Your task to perform on an android device: check android version Image 0: 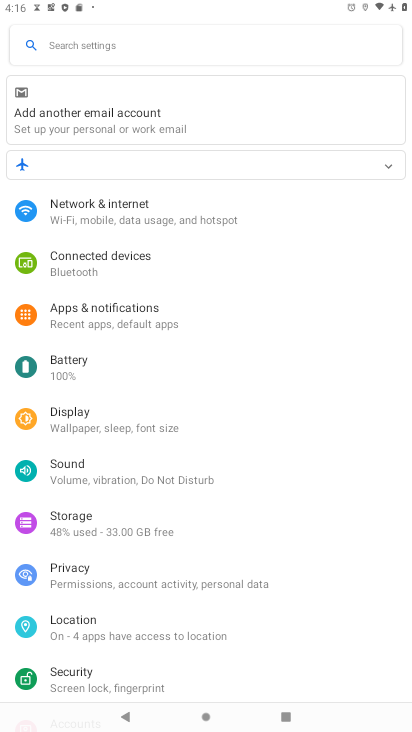
Step 0: press back button
Your task to perform on an android device: check android version Image 1: 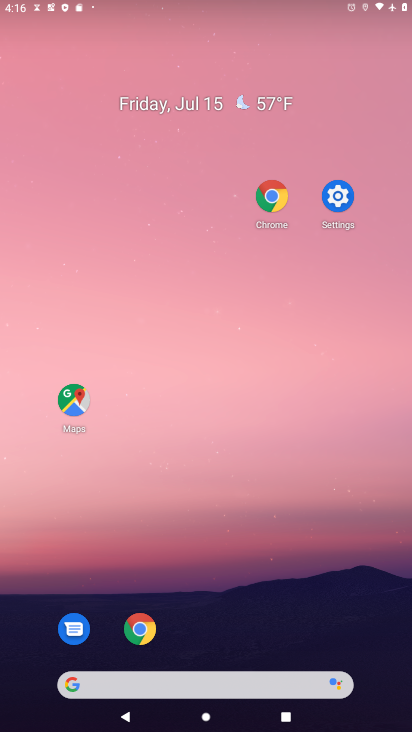
Step 1: drag from (244, 402) to (201, 83)
Your task to perform on an android device: check android version Image 2: 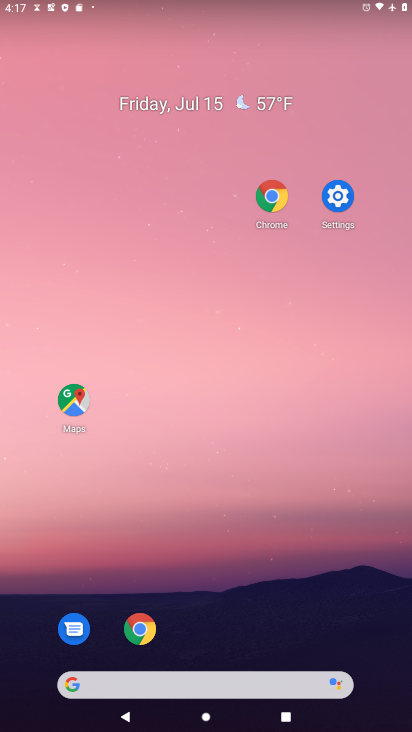
Step 2: drag from (187, 506) to (221, 134)
Your task to perform on an android device: check android version Image 3: 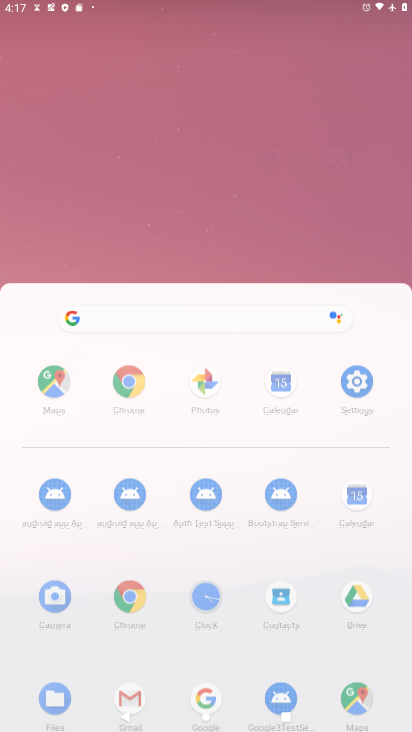
Step 3: drag from (224, 507) to (187, 156)
Your task to perform on an android device: check android version Image 4: 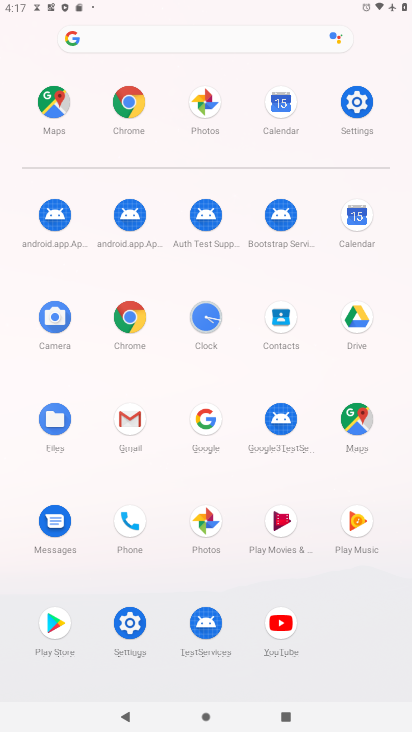
Step 4: drag from (222, 487) to (184, 227)
Your task to perform on an android device: check android version Image 5: 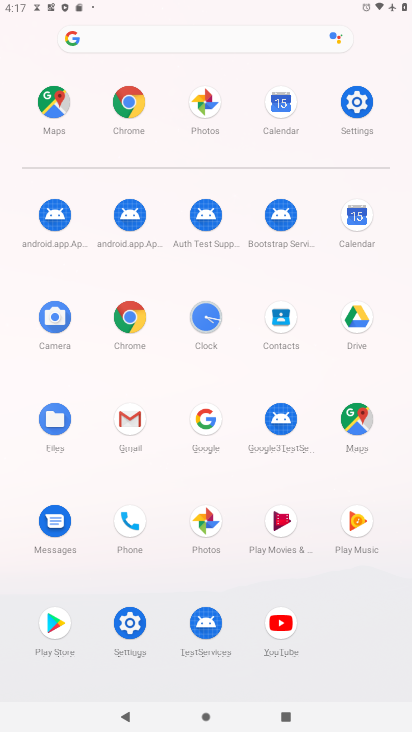
Step 5: click (134, 106)
Your task to perform on an android device: check android version Image 6: 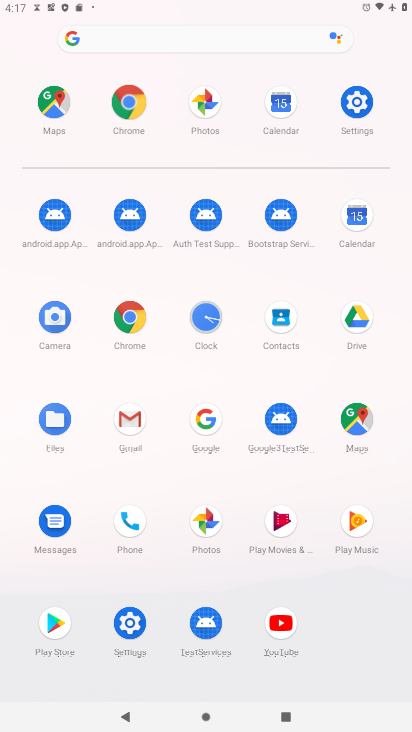
Step 6: click (133, 105)
Your task to perform on an android device: check android version Image 7: 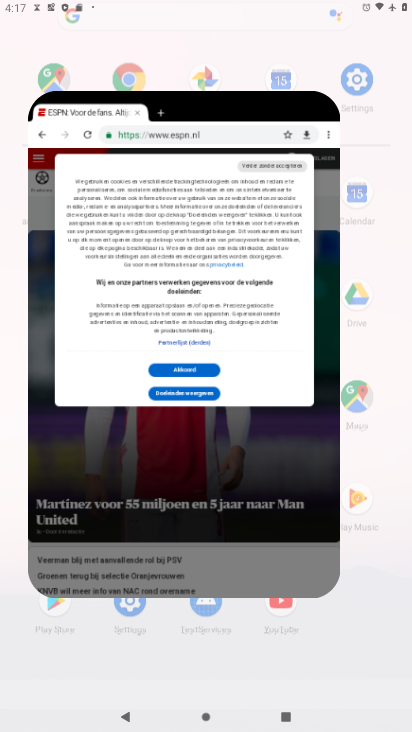
Step 7: click (133, 105)
Your task to perform on an android device: check android version Image 8: 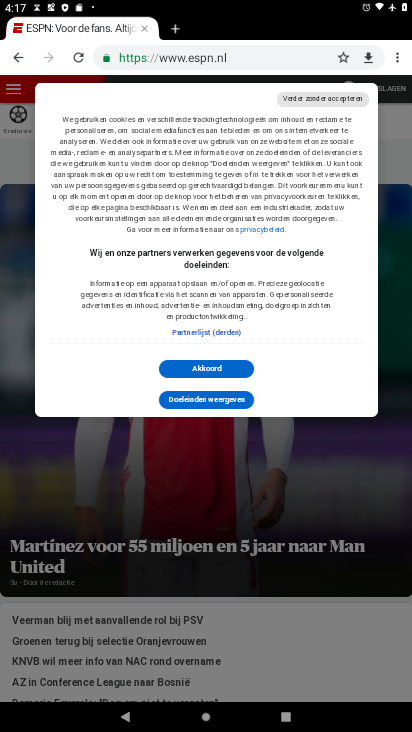
Step 8: click (188, 480)
Your task to perform on an android device: check android version Image 9: 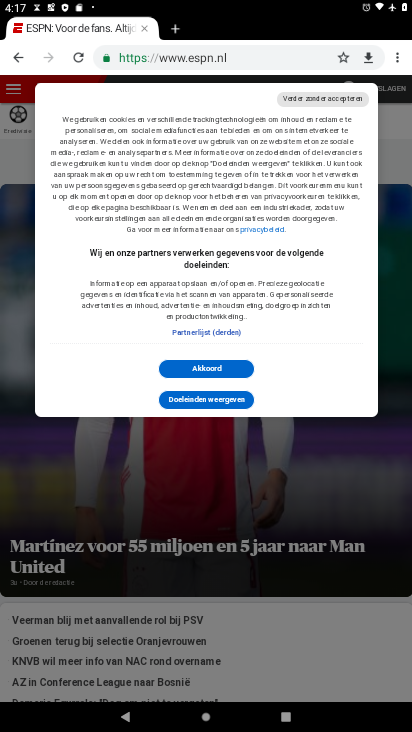
Step 9: click (189, 481)
Your task to perform on an android device: check android version Image 10: 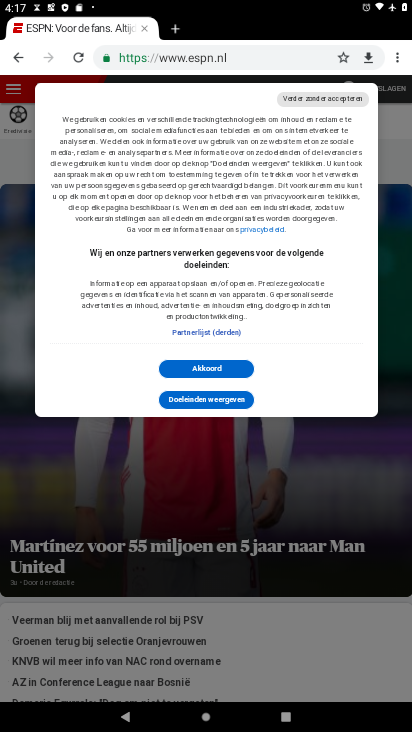
Step 10: click (189, 481)
Your task to perform on an android device: check android version Image 11: 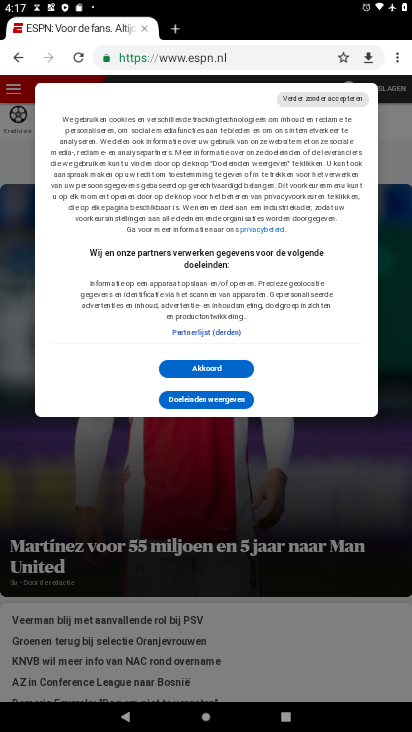
Step 11: click (197, 475)
Your task to perform on an android device: check android version Image 12: 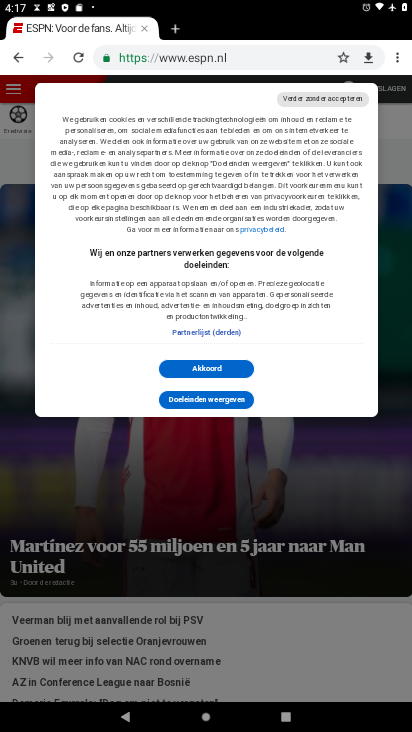
Step 12: click (206, 469)
Your task to perform on an android device: check android version Image 13: 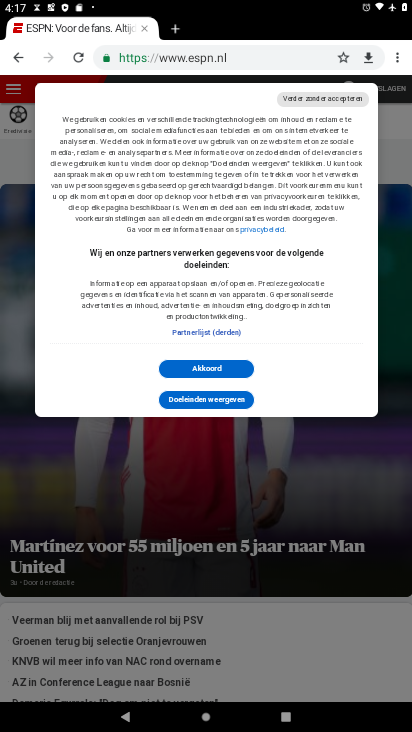
Step 13: click (252, 448)
Your task to perform on an android device: check android version Image 14: 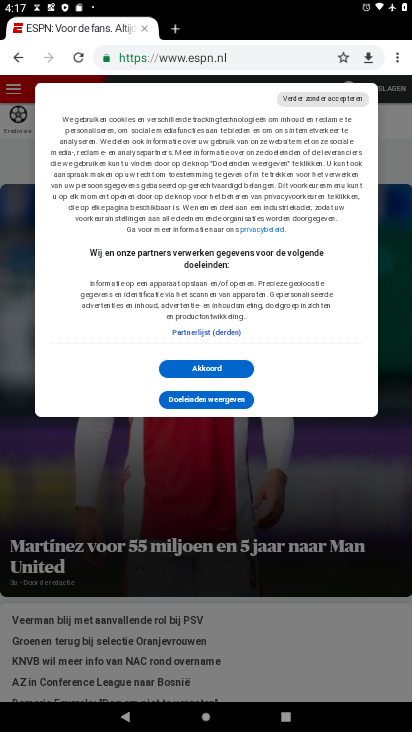
Step 14: click (394, 324)
Your task to perform on an android device: check android version Image 15: 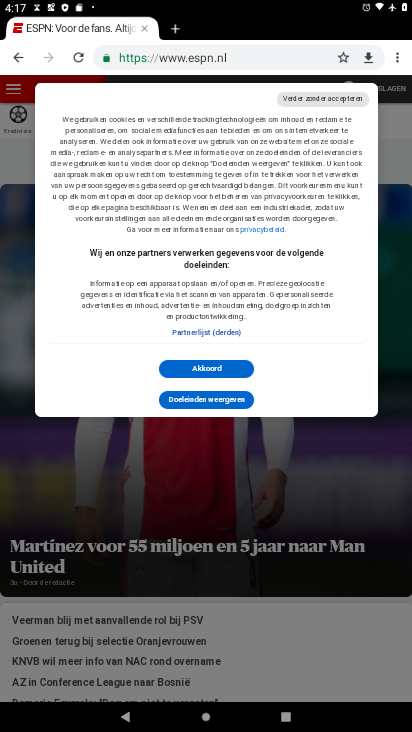
Step 15: click (394, 323)
Your task to perform on an android device: check android version Image 16: 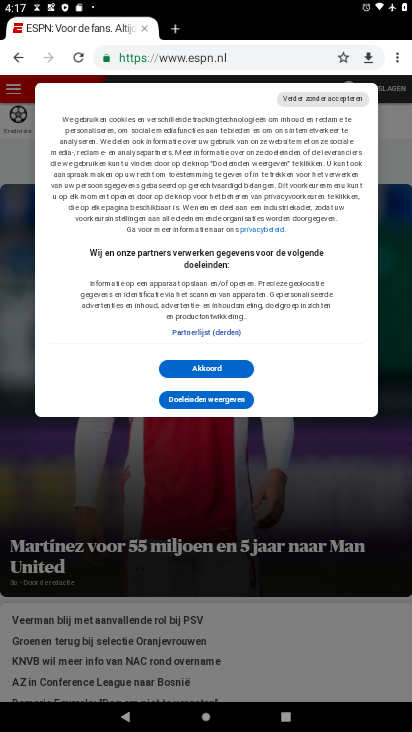
Step 16: press back button
Your task to perform on an android device: check android version Image 17: 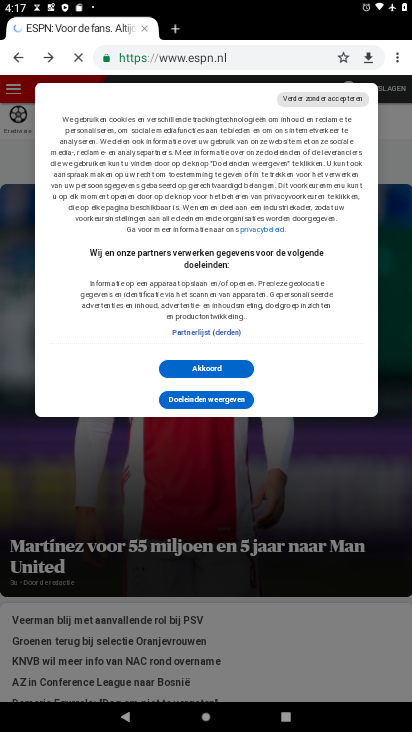
Step 17: press back button
Your task to perform on an android device: check android version Image 18: 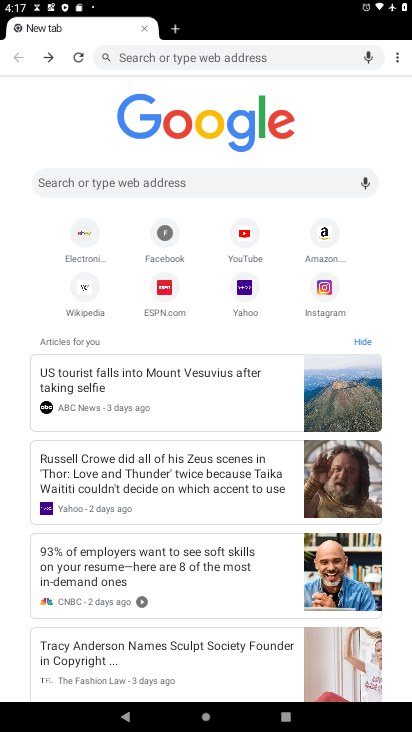
Step 18: press home button
Your task to perform on an android device: check android version Image 19: 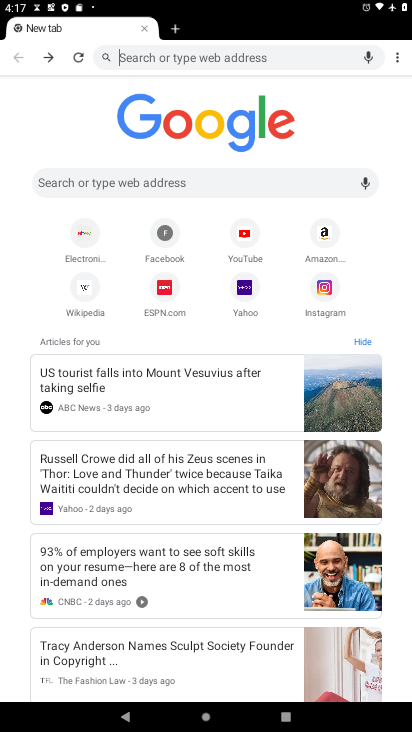
Step 19: press home button
Your task to perform on an android device: check android version Image 20: 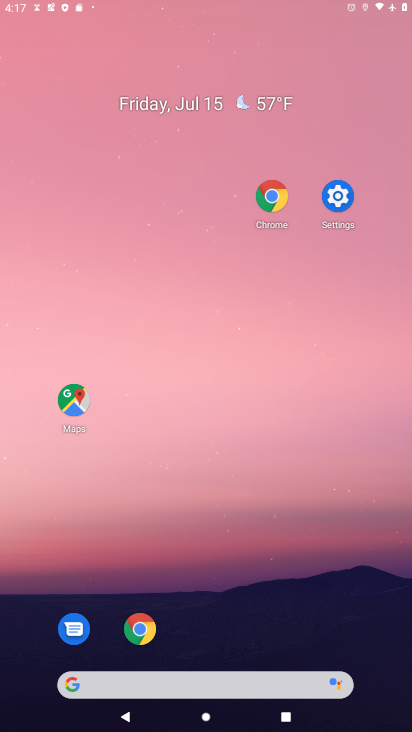
Step 20: press home button
Your task to perform on an android device: check android version Image 21: 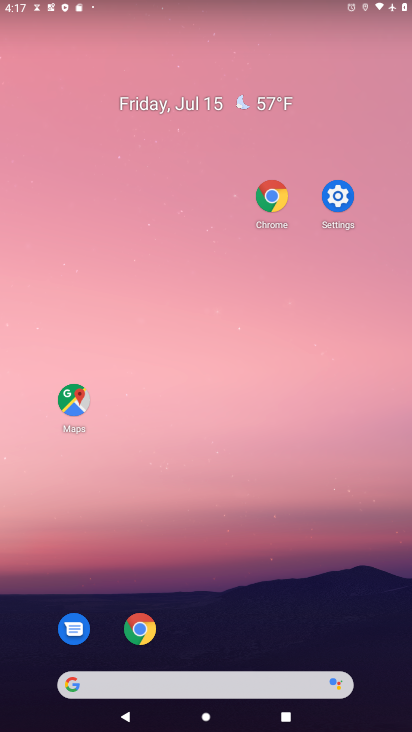
Step 21: drag from (239, 647) to (178, 62)
Your task to perform on an android device: check android version Image 22: 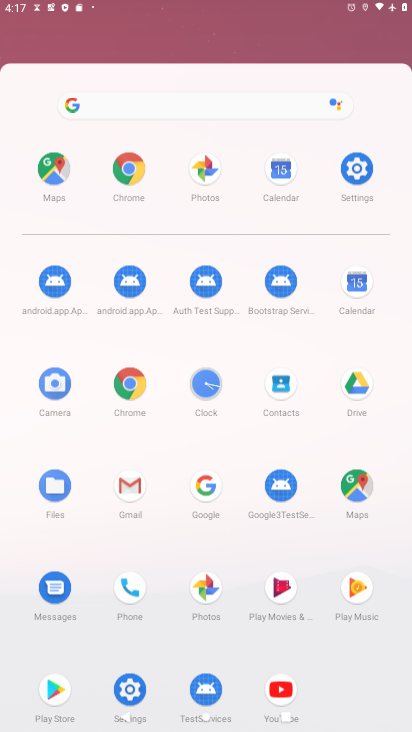
Step 22: drag from (237, 497) to (206, 56)
Your task to perform on an android device: check android version Image 23: 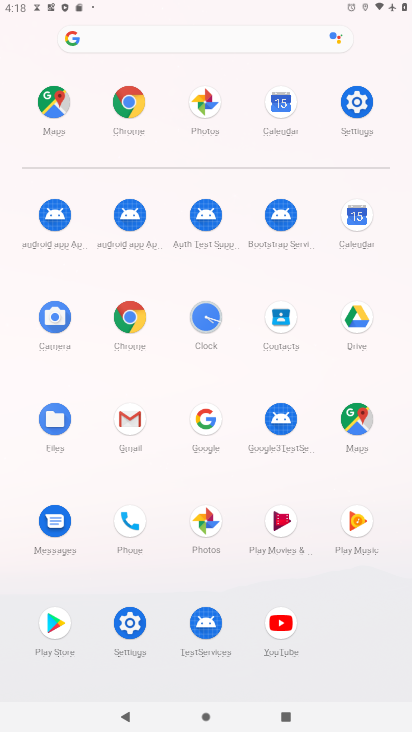
Step 23: click (355, 98)
Your task to perform on an android device: check android version Image 24: 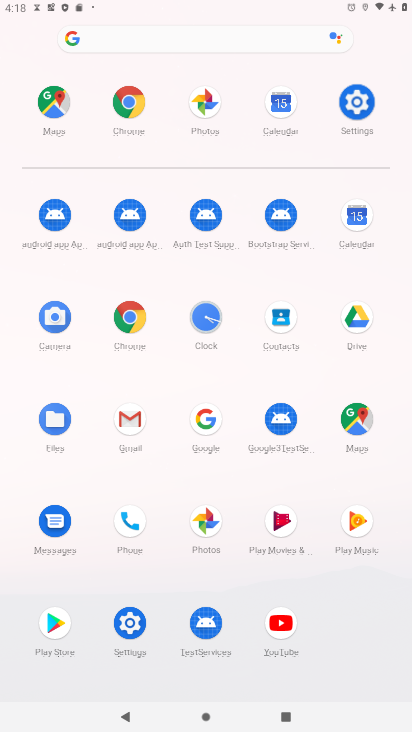
Step 24: click (356, 98)
Your task to perform on an android device: check android version Image 25: 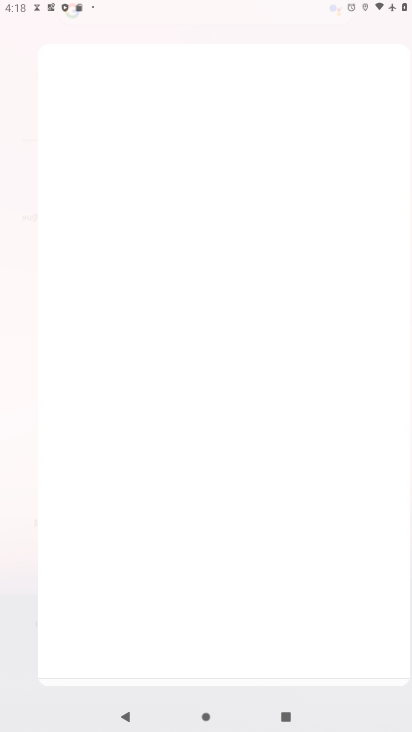
Step 25: click (358, 99)
Your task to perform on an android device: check android version Image 26: 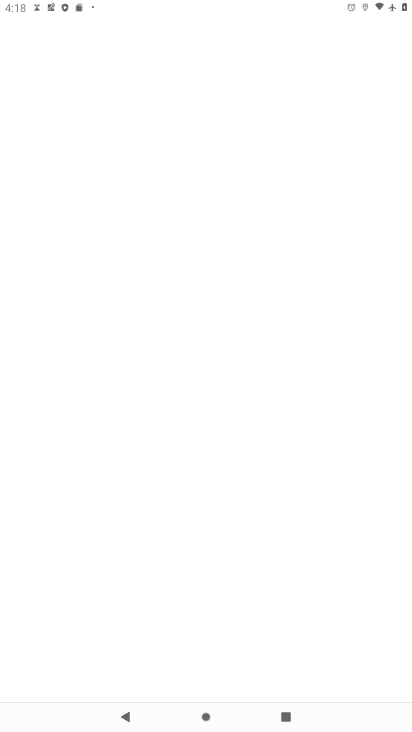
Step 26: click (358, 99)
Your task to perform on an android device: check android version Image 27: 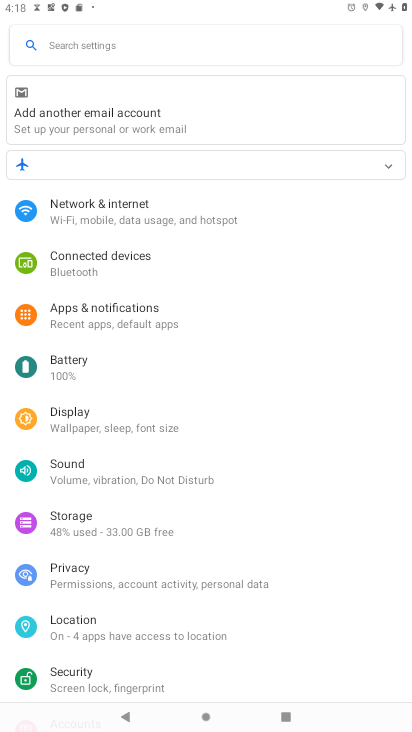
Step 27: click (33, 172)
Your task to perform on an android device: check android version Image 28: 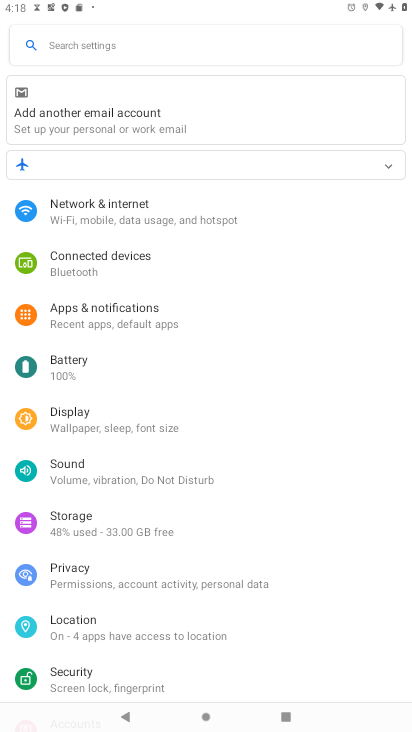
Step 28: drag from (76, 354) to (92, 110)
Your task to perform on an android device: check android version Image 29: 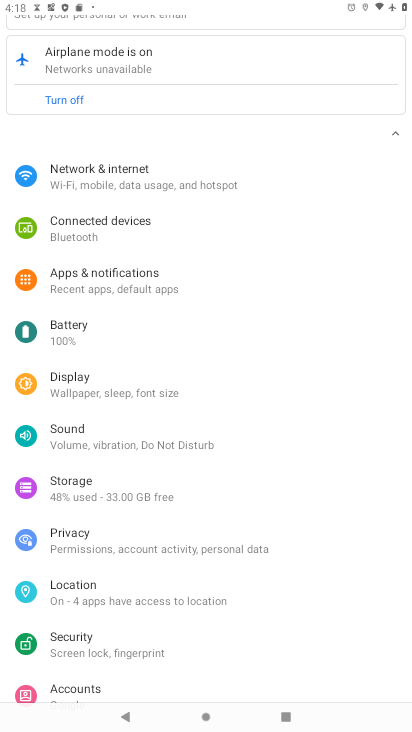
Step 29: drag from (99, 417) to (122, 249)
Your task to perform on an android device: check android version Image 30: 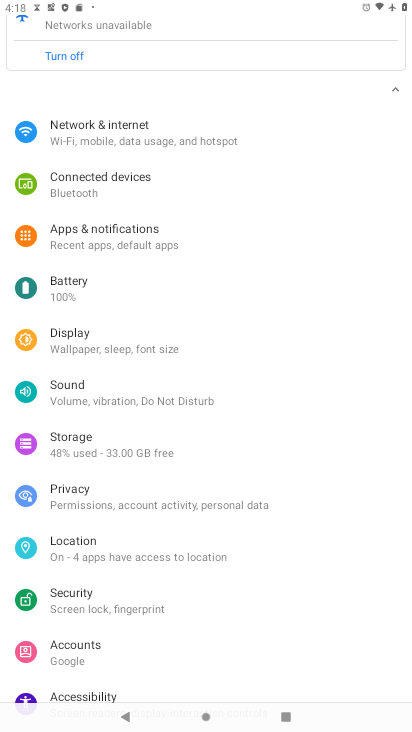
Step 30: drag from (139, 446) to (139, 197)
Your task to perform on an android device: check android version Image 31: 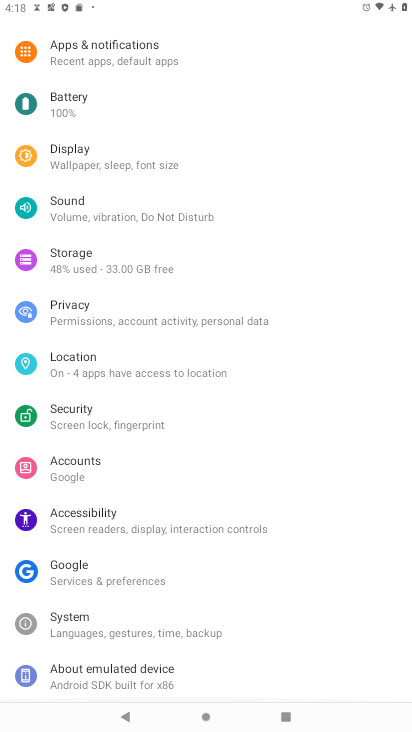
Step 31: drag from (157, 456) to (161, 213)
Your task to perform on an android device: check android version Image 32: 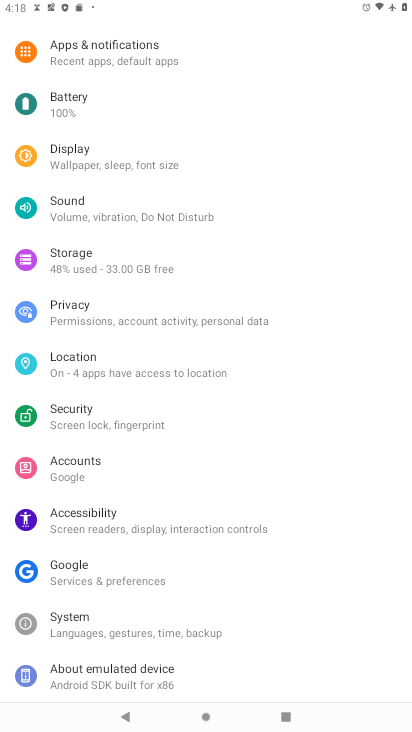
Step 32: click (104, 689)
Your task to perform on an android device: check android version Image 33: 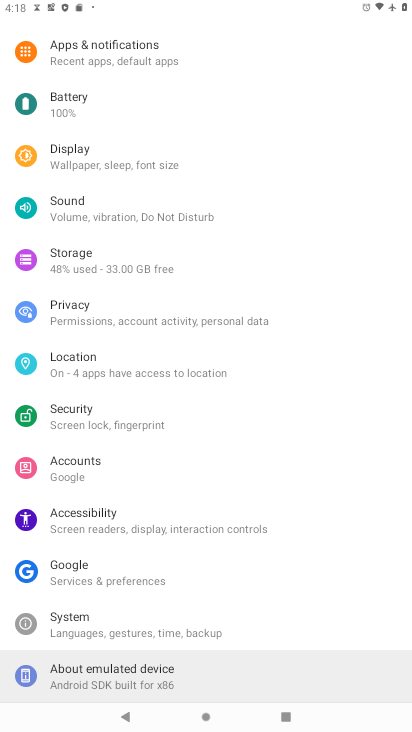
Step 33: click (103, 688)
Your task to perform on an android device: check android version Image 34: 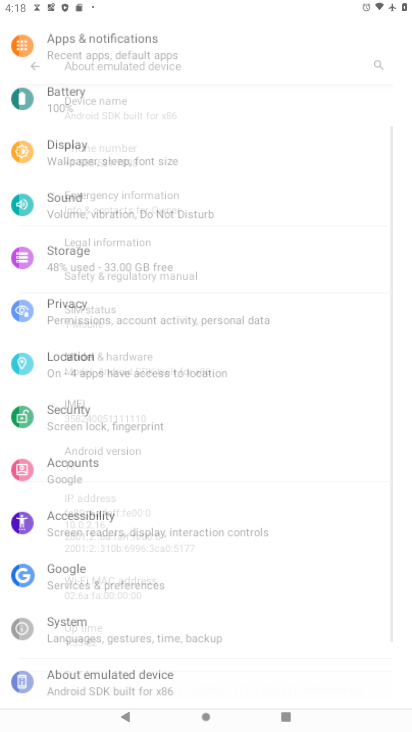
Step 34: click (104, 686)
Your task to perform on an android device: check android version Image 35: 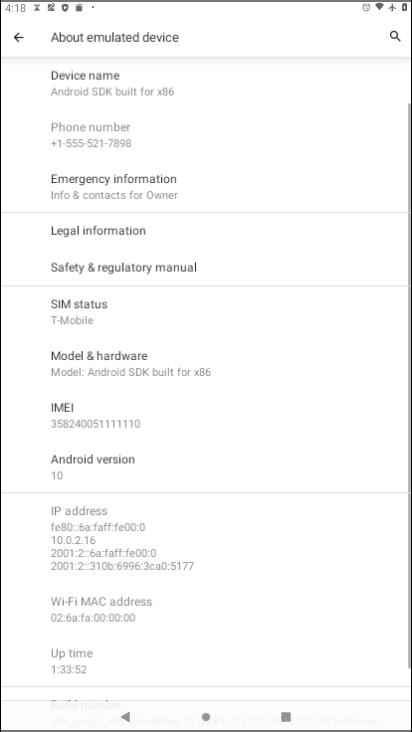
Step 35: click (104, 686)
Your task to perform on an android device: check android version Image 36: 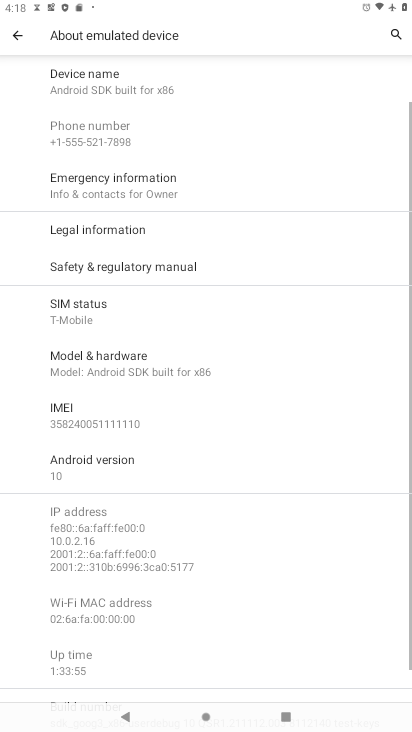
Step 36: task complete